Your task to perform on an android device: What's the weather? Image 0: 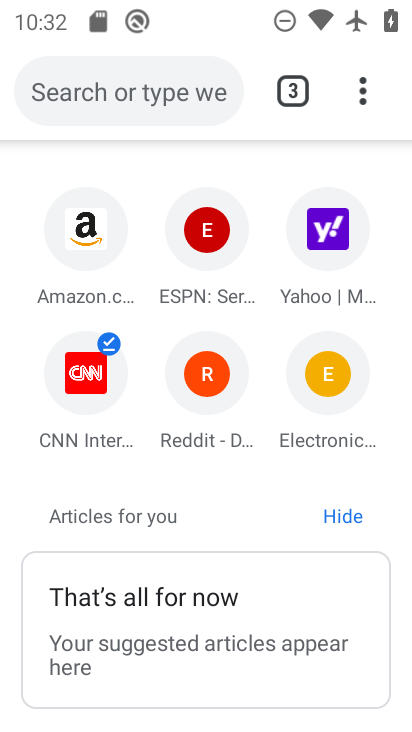
Step 0: press home button
Your task to perform on an android device: What's the weather? Image 1: 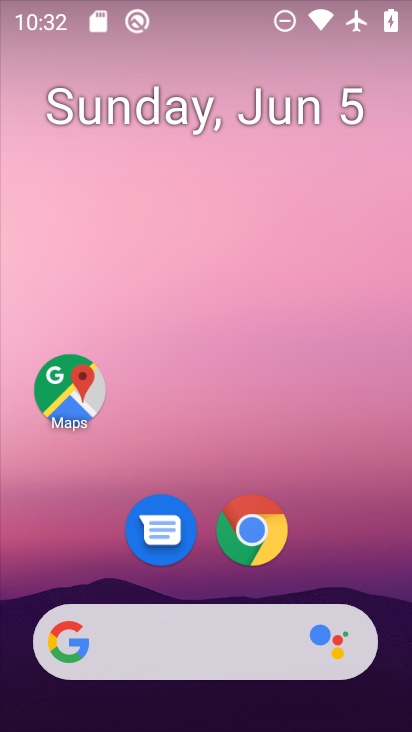
Step 1: drag from (13, 256) to (406, 257)
Your task to perform on an android device: What's the weather? Image 2: 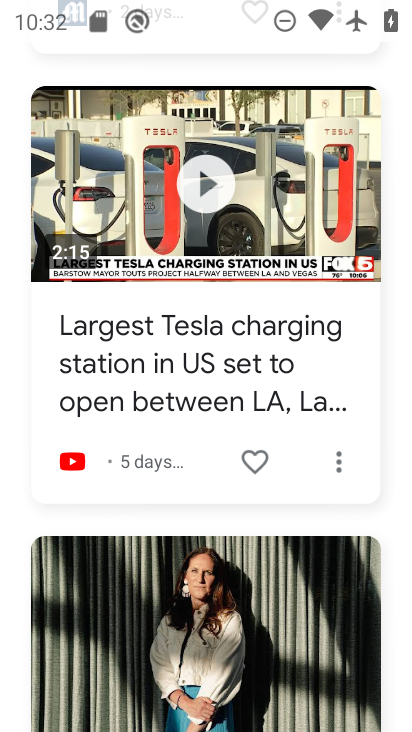
Step 2: drag from (265, 112) to (272, 471)
Your task to perform on an android device: What's the weather? Image 3: 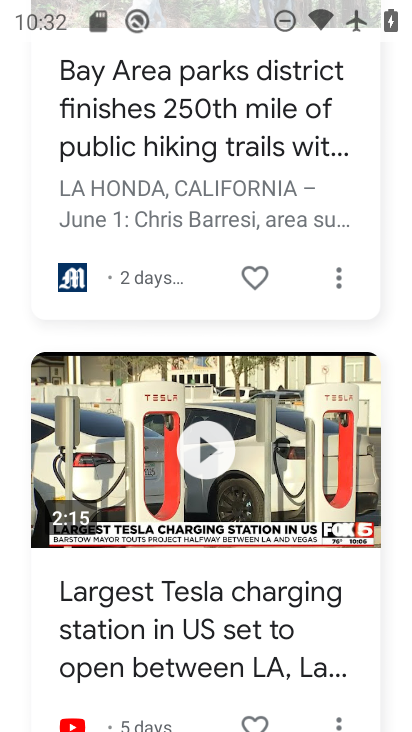
Step 3: drag from (284, 135) to (275, 522)
Your task to perform on an android device: What's the weather? Image 4: 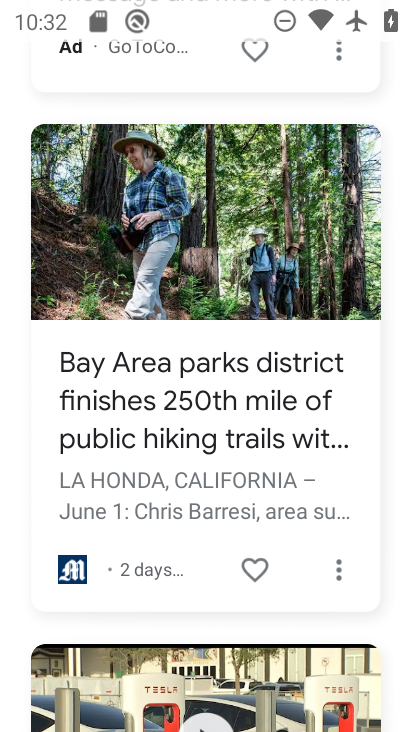
Step 4: drag from (281, 206) to (290, 621)
Your task to perform on an android device: What's the weather? Image 5: 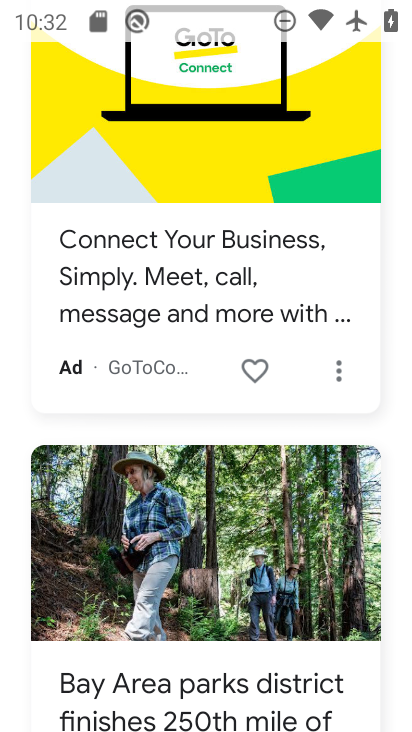
Step 5: drag from (268, 160) to (264, 705)
Your task to perform on an android device: What's the weather? Image 6: 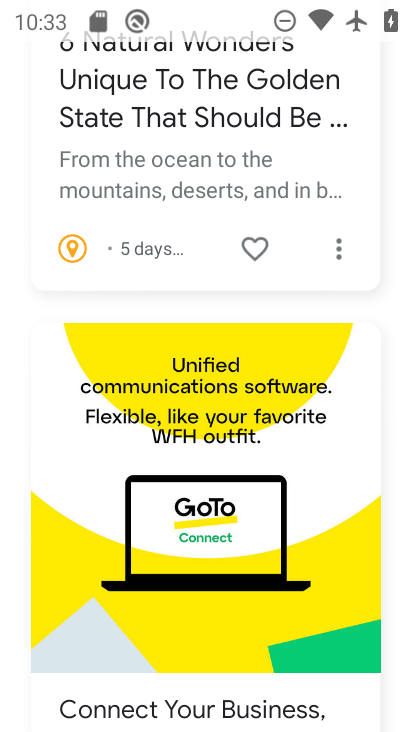
Step 6: drag from (282, 166) to (255, 557)
Your task to perform on an android device: What's the weather? Image 7: 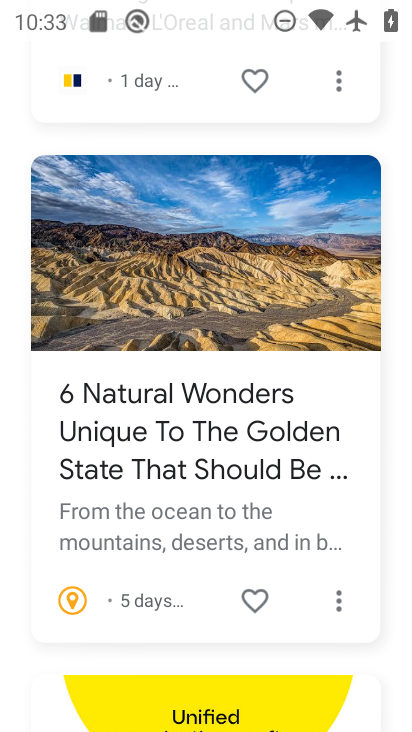
Step 7: drag from (274, 124) to (266, 508)
Your task to perform on an android device: What's the weather? Image 8: 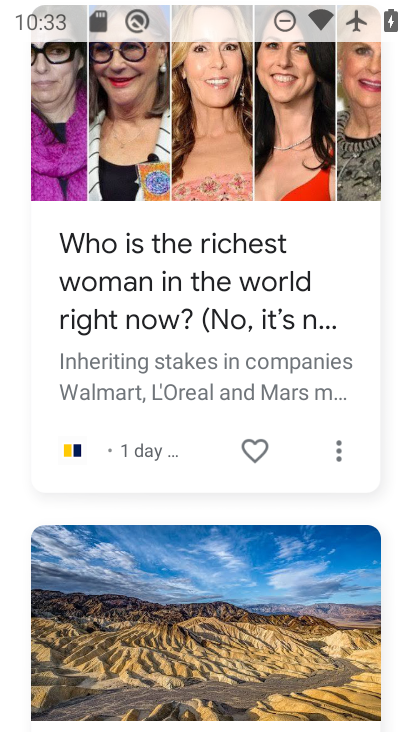
Step 8: drag from (281, 51) to (253, 518)
Your task to perform on an android device: What's the weather? Image 9: 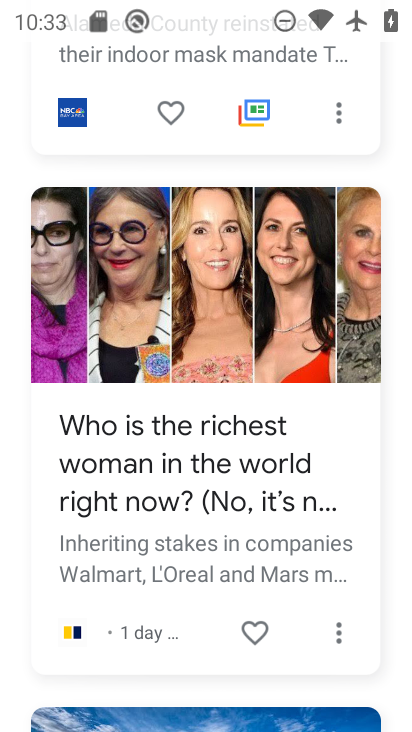
Step 9: drag from (285, 150) to (292, 598)
Your task to perform on an android device: What's the weather? Image 10: 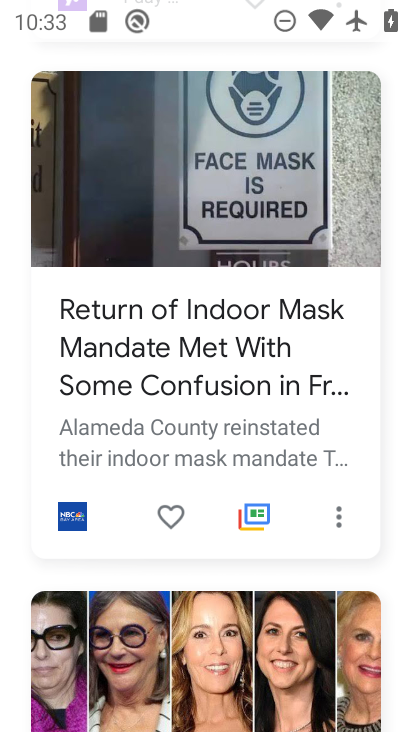
Step 10: drag from (275, 121) to (238, 556)
Your task to perform on an android device: What's the weather? Image 11: 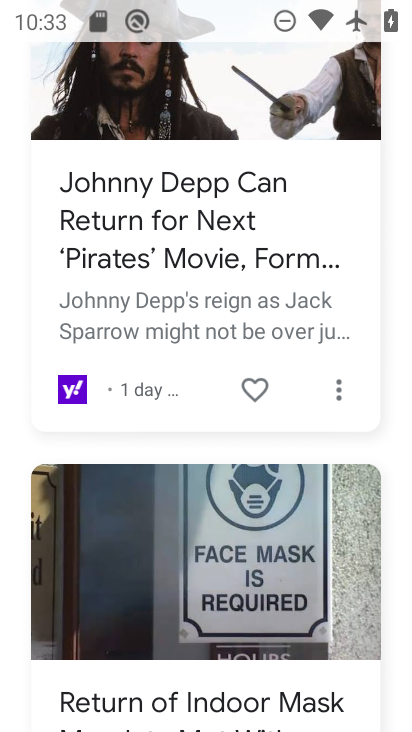
Step 11: drag from (250, 94) to (255, 552)
Your task to perform on an android device: What's the weather? Image 12: 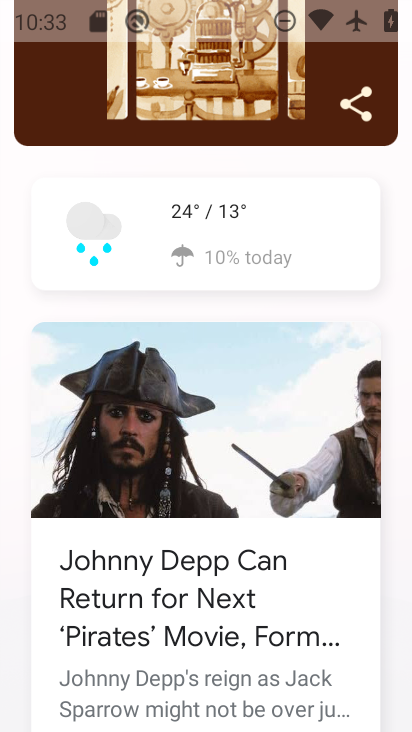
Step 12: drag from (294, 144) to (281, 406)
Your task to perform on an android device: What's the weather? Image 13: 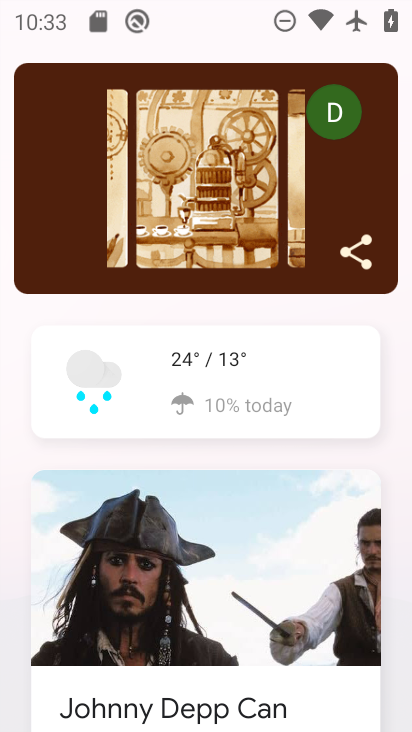
Step 13: click (233, 372)
Your task to perform on an android device: What's the weather? Image 14: 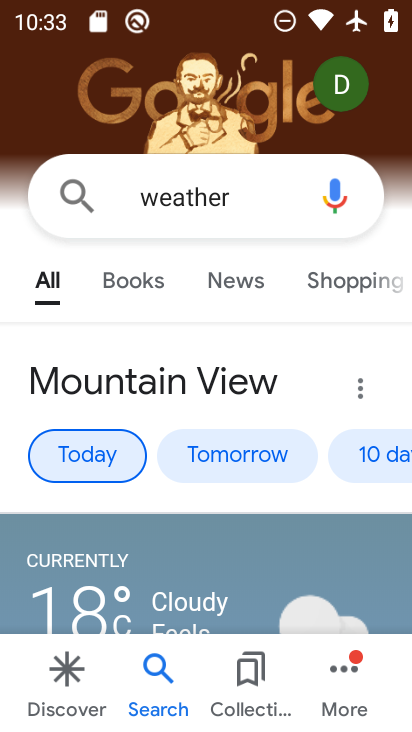
Step 14: task complete